Your task to perform on an android device: Open the phone app and click the voicemail tab. Image 0: 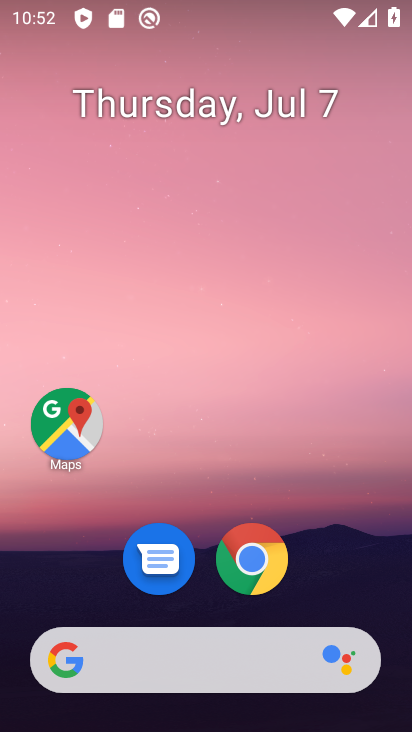
Step 0: drag from (370, 595) to (367, 176)
Your task to perform on an android device: Open the phone app and click the voicemail tab. Image 1: 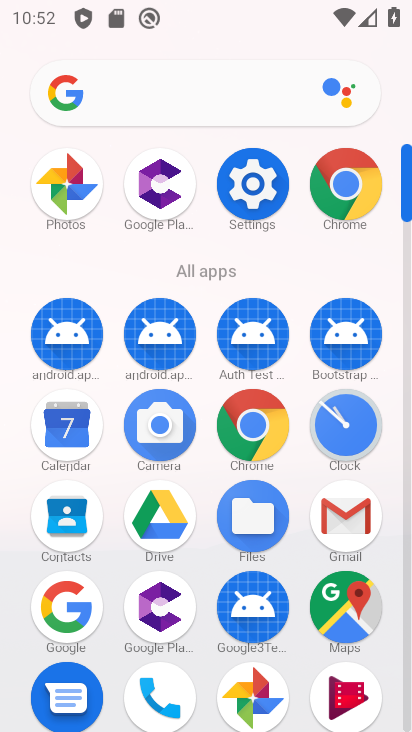
Step 1: drag from (384, 571) to (387, 307)
Your task to perform on an android device: Open the phone app and click the voicemail tab. Image 2: 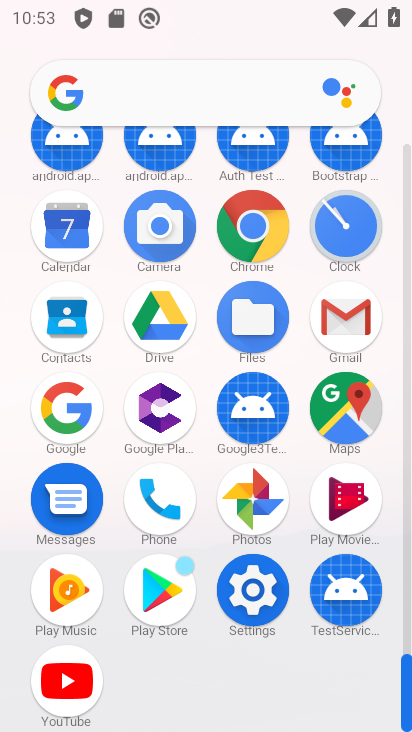
Step 2: click (171, 505)
Your task to perform on an android device: Open the phone app and click the voicemail tab. Image 3: 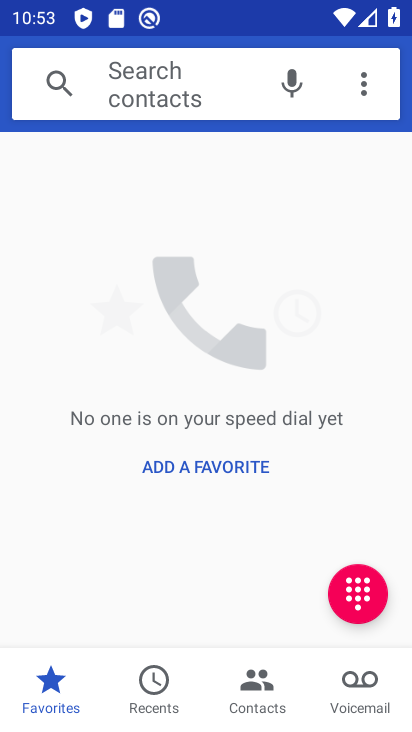
Step 3: click (354, 697)
Your task to perform on an android device: Open the phone app and click the voicemail tab. Image 4: 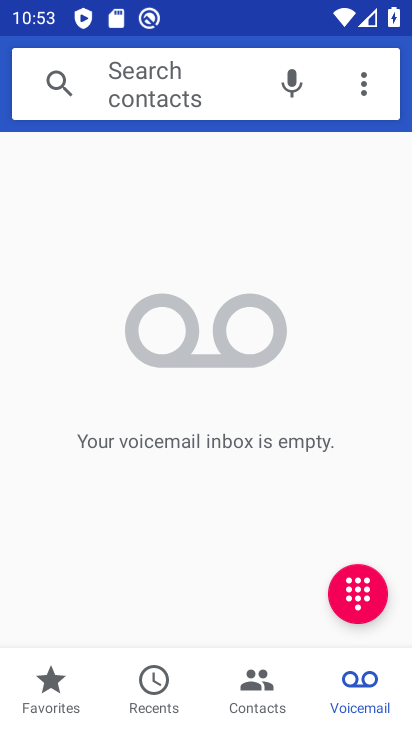
Step 4: task complete